Your task to perform on an android device: Set the phone to "Do not disturb". Image 0: 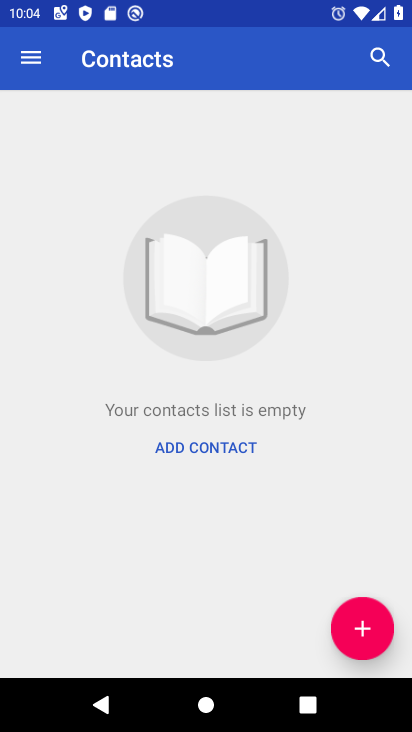
Step 0: drag from (314, 9) to (296, 454)
Your task to perform on an android device: Set the phone to "Do not disturb". Image 1: 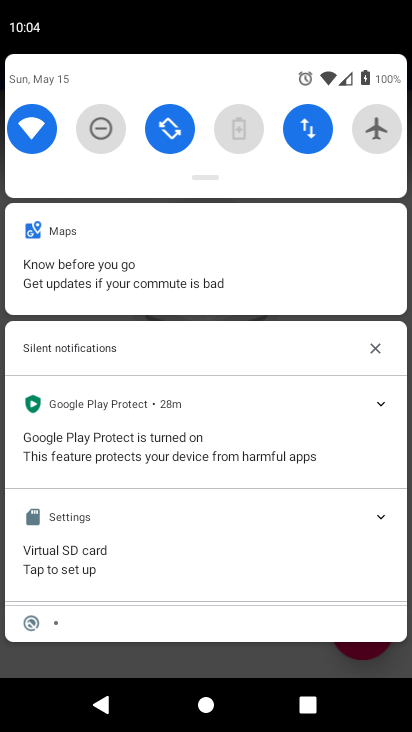
Step 1: click (103, 122)
Your task to perform on an android device: Set the phone to "Do not disturb". Image 2: 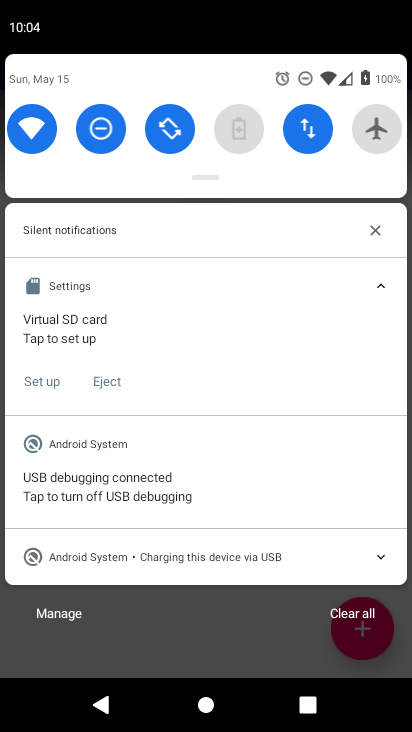
Step 2: task complete